Your task to perform on an android device: Open accessibility settings Image 0: 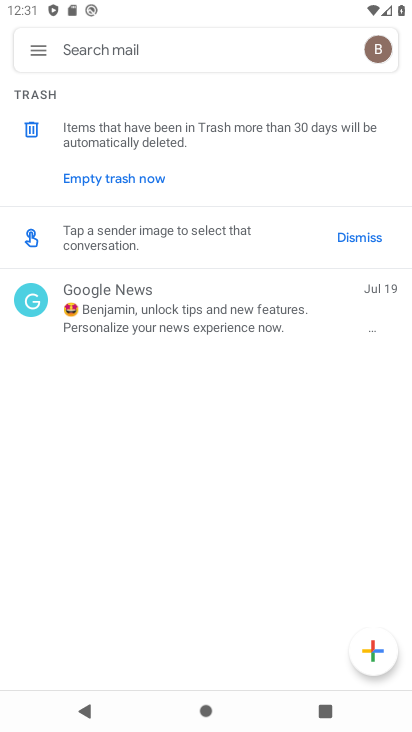
Step 0: press home button
Your task to perform on an android device: Open accessibility settings Image 1: 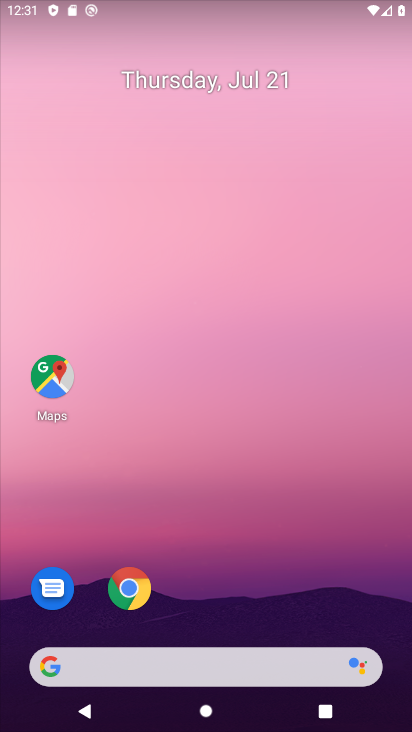
Step 1: drag from (269, 547) to (407, 117)
Your task to perform on an android device: Open accessibility settings Image 2: 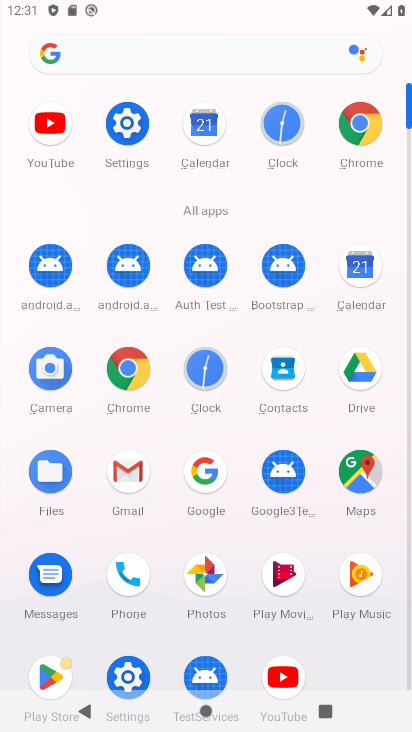
Step 2: click (126, 674)
Your task to perform on an android device: Open accessibility settings Image 3: 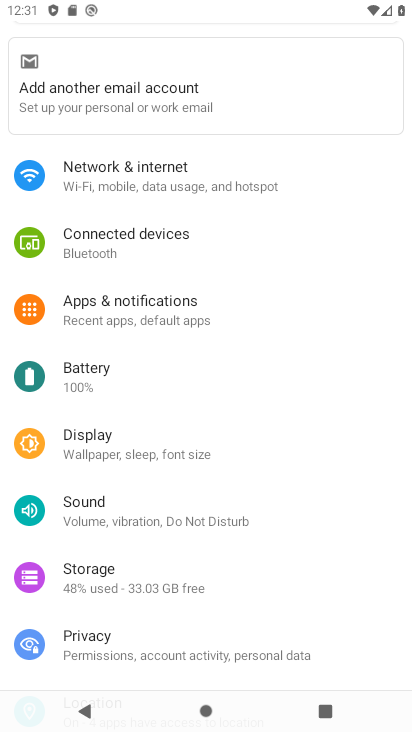
Step 3: drag from (143, 590) to (231, 328)
Your task to perform on an android device: Open accessibility settings Image 4: 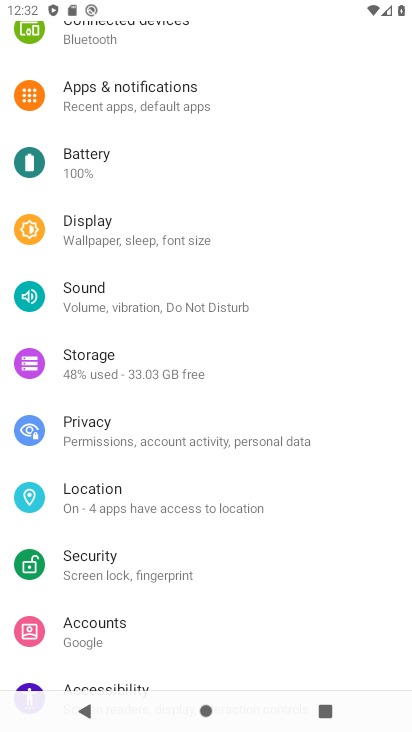
Step 4: drag from (172, 600) to (247, 336)
Your task to perform on an android device: Open accessibility settings Image 5: 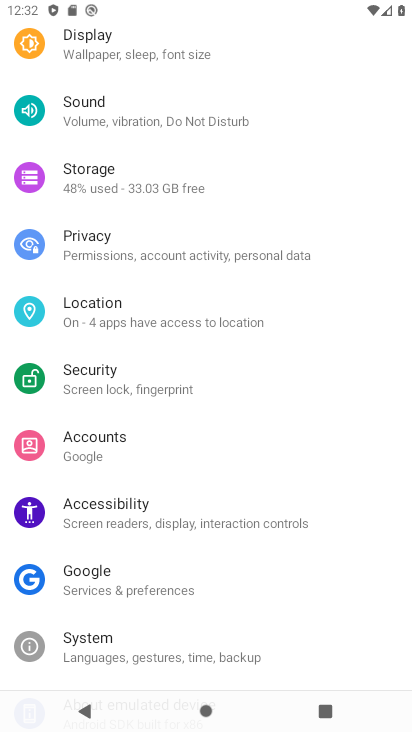
Step 5: click (213, 522)
Your task to perform on an android device: Open accessibility settings Image 6: 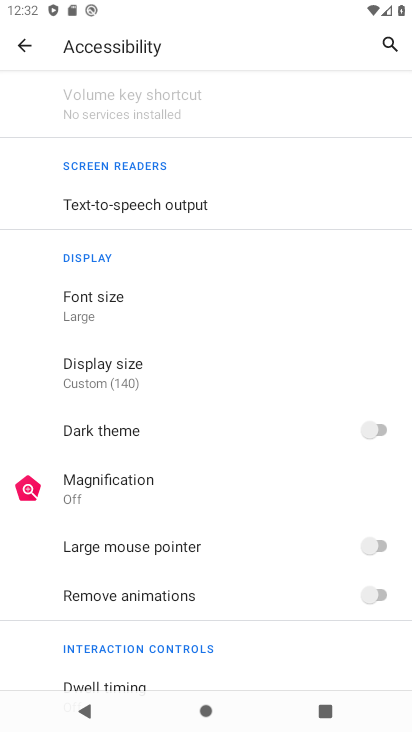
Step 6: task complete